Your task to perform on an android device: Open Google Maps Image 0: 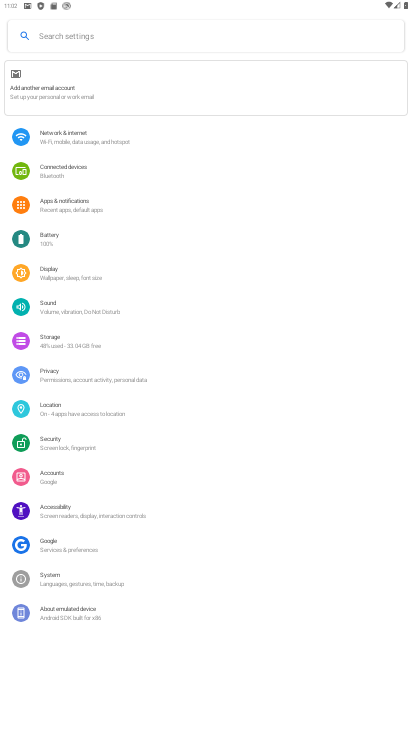
Step 0: press home button
Your task to perform on an android device: Open Google Maps Image 1: 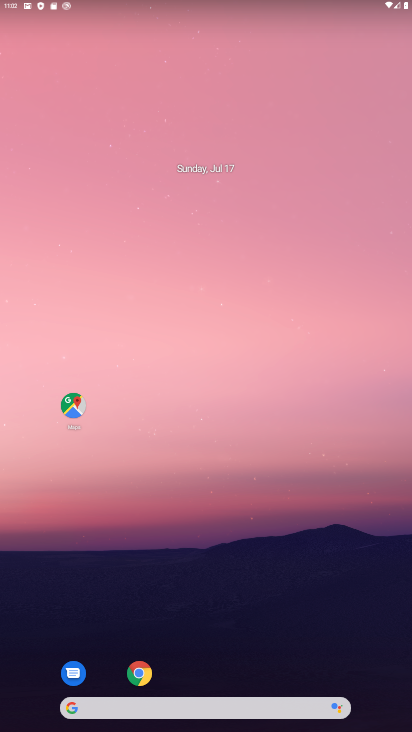
Step 1: drag from (313, 648) to (285, 318)
Your task to perform on an android device: Open Google Maps Image 2: 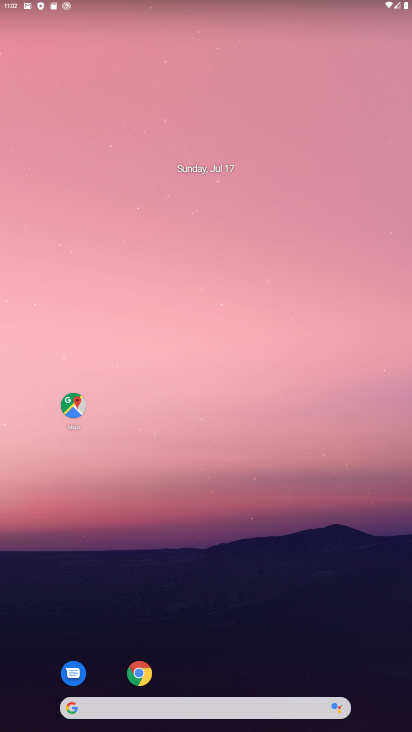
Step 2: drag from (197, 580) to (190, 203)
Your task to perform on an android device: Open Google Maps Image 3: 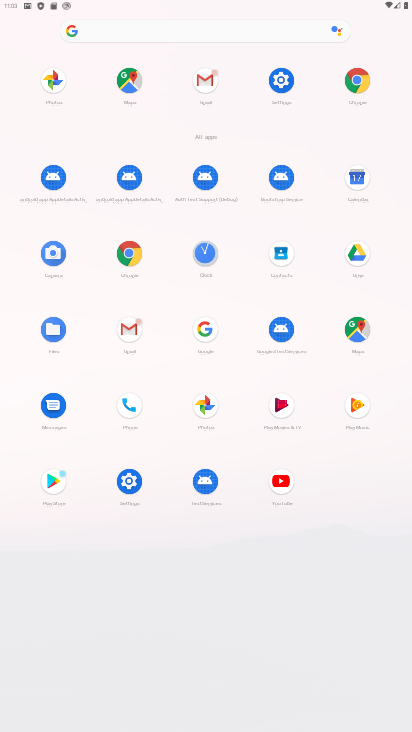
Step 3: click (124, 80)
Your task to perform on an android device: Open Google Maps Image 4: 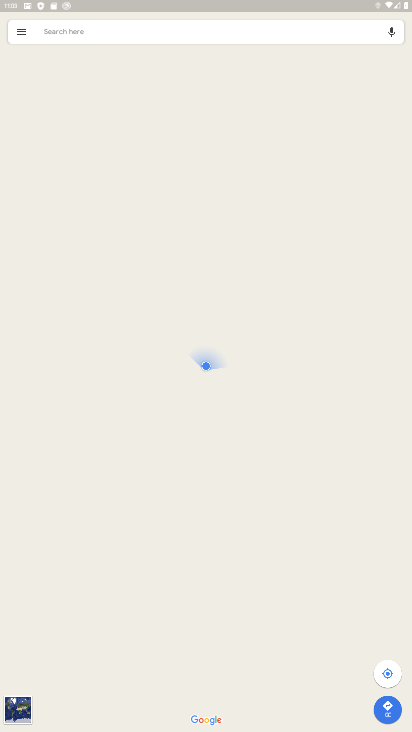
Step 4: task complete